Your task to perform on an android device: Open ESPN.com Image 0: 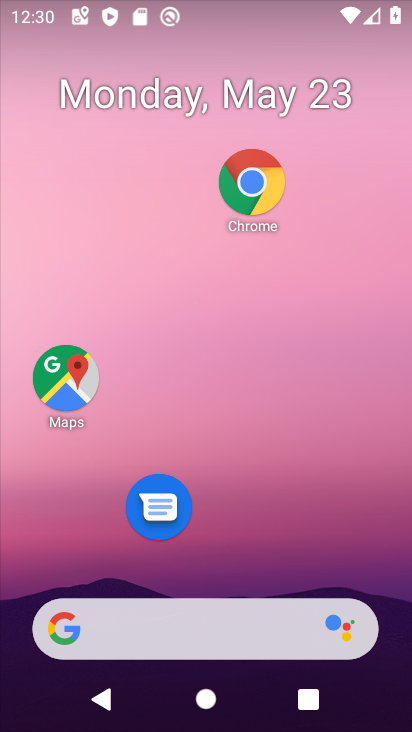
Step 0: click (160, 623)
Your task to perform on an android device: Open ESPN.com Image 1: 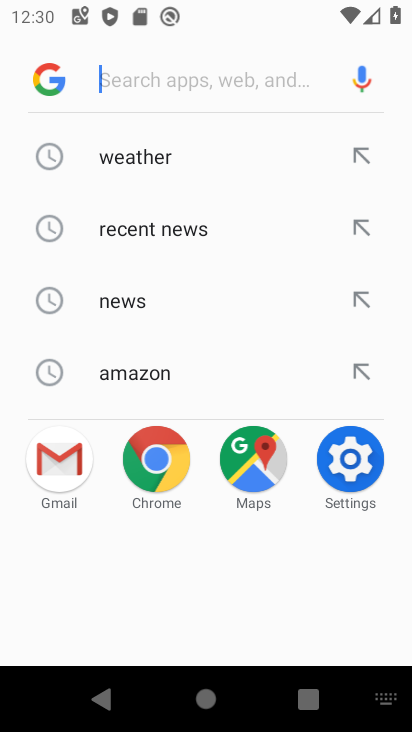
Step 1: type "espn.com"
Your task to perform on an android device: Open ESPN.com Image 2: 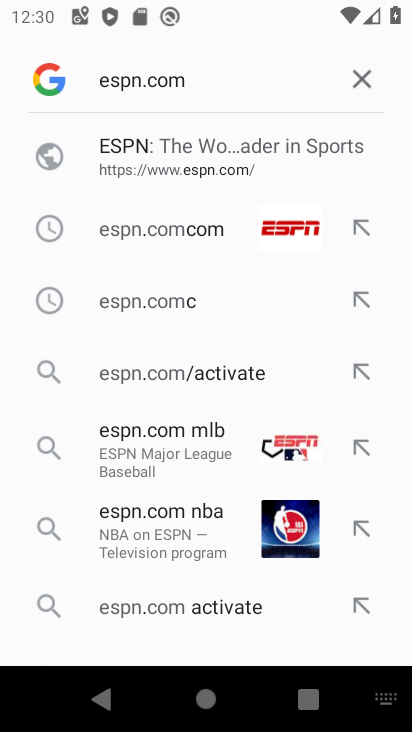
Step 2: click (216, 145)
Your task to perform on an android device: Open ESPN.com Image 3: 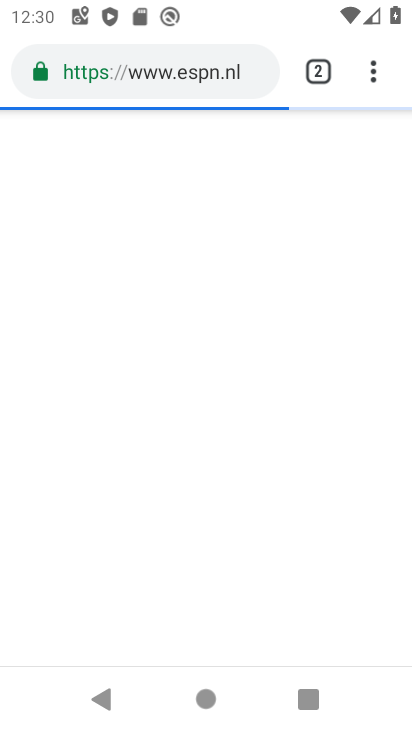
Step 3: task complete